Your task to perform on an android device: turn pop-ups on in chrome Image 0: 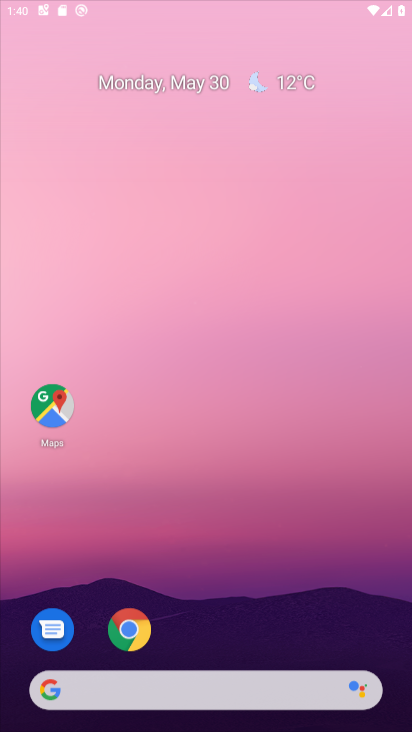
Step 0: drag from (180, 510) to (152, 14)
Your task to perform on an android device: turn pop-ups on in chrome Image 1: 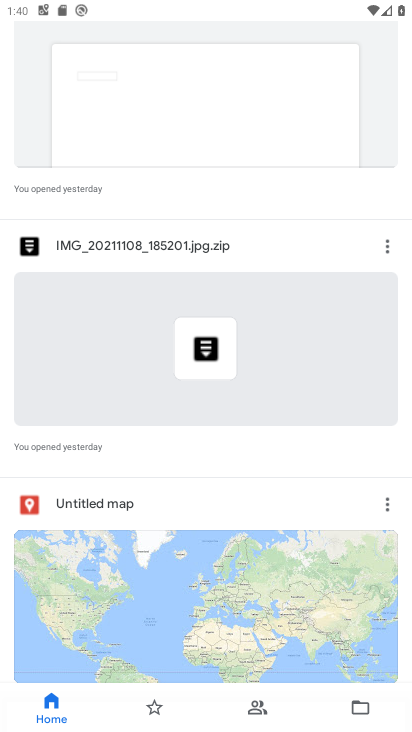
Step 1: press home button
Your task to perform on an android device: turn pop-ups on in chrome Image 2: 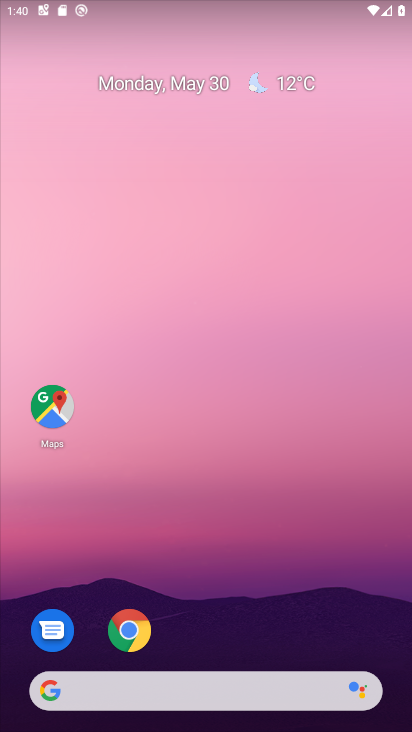
Step 2: drag from (203, 694) to (191, 56)
Your task to perform on an android device: turn pop-ups on in chrome Image 3: 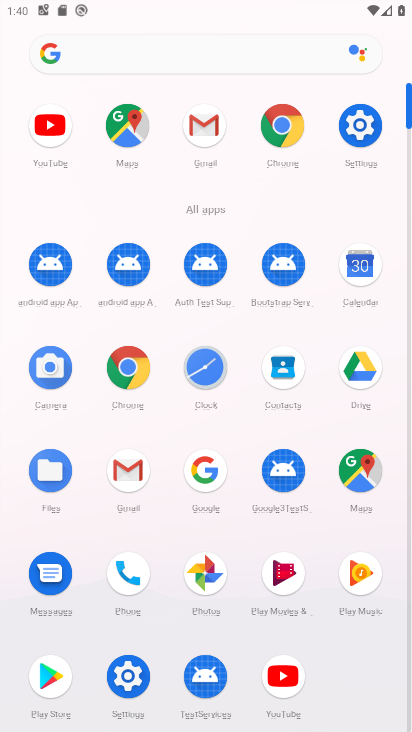
Step 3: click (121, 362)
Your task to perform on an android device: turn pop-ups on in chrome Image 4: 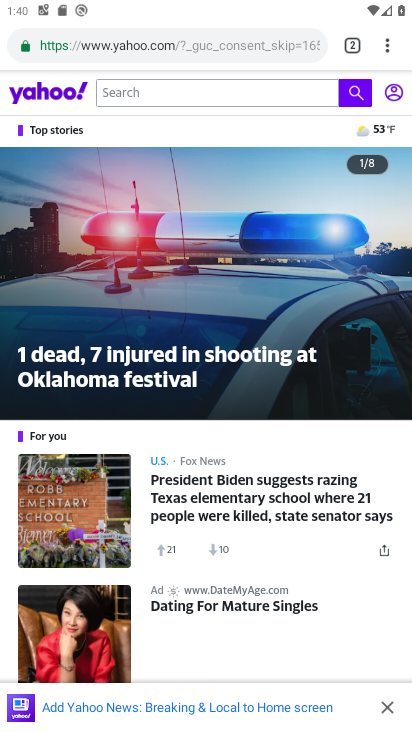
Step 4: drag from (386, 54) to (253, 554)
Your task to perform on an android device: turn pop-ups on in chrome Image 5: 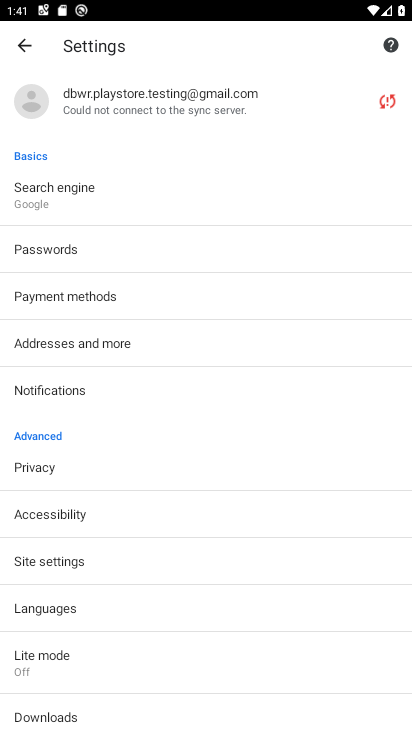
Step 5: click (157, 558)
Your task to perform on an android device: turn pop-ups on in chrome Image 6: 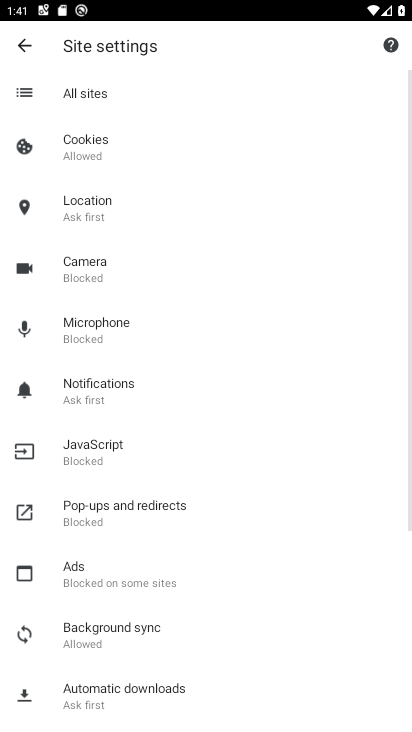
Step 6: click (170, 516)
Your task to perform on an android device: turn pop-ups on in chrome Image 7: 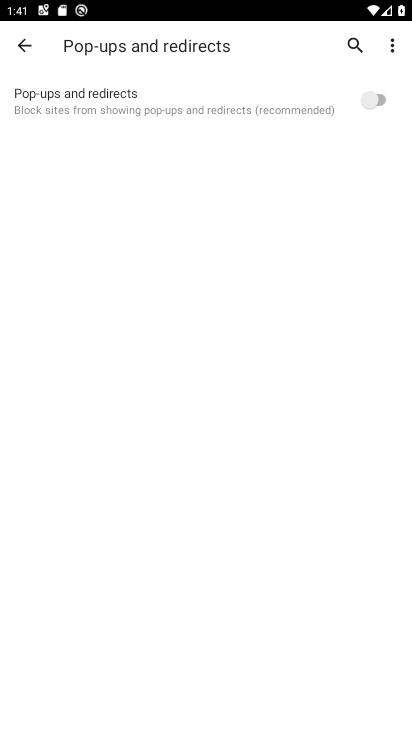
Step 7: click (385, 93)
Your task to perform on an android device: turn pop-ups on in chrome Image 8: 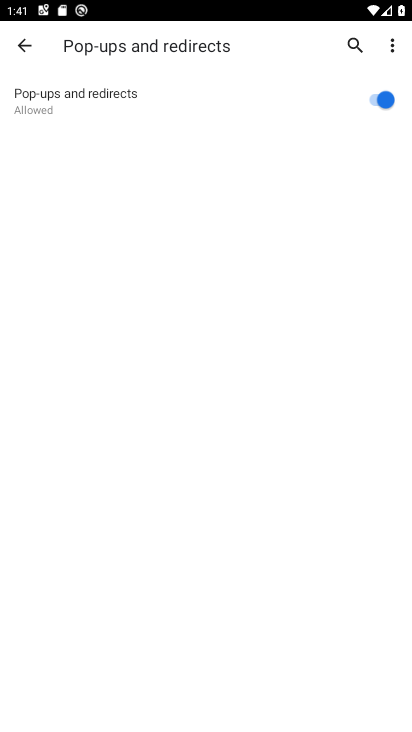
Step 8: task complete